Your task to perform on an android device: Where can I buy a nice beach cooler? Image 0: 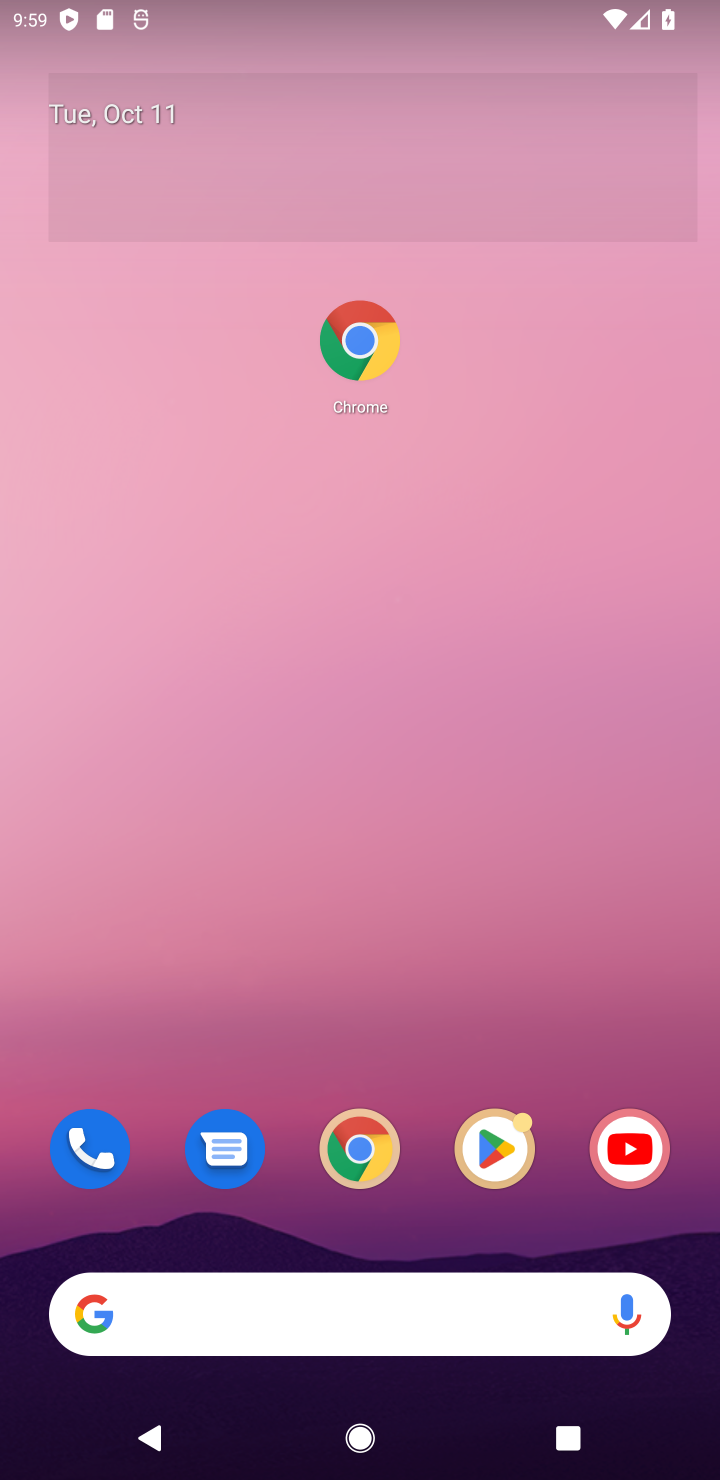
Step 0: drag from (411, 1249) to (395, 226)
Your task to perform on an android device: Where can I buy a nice beach cooler? Image 1: 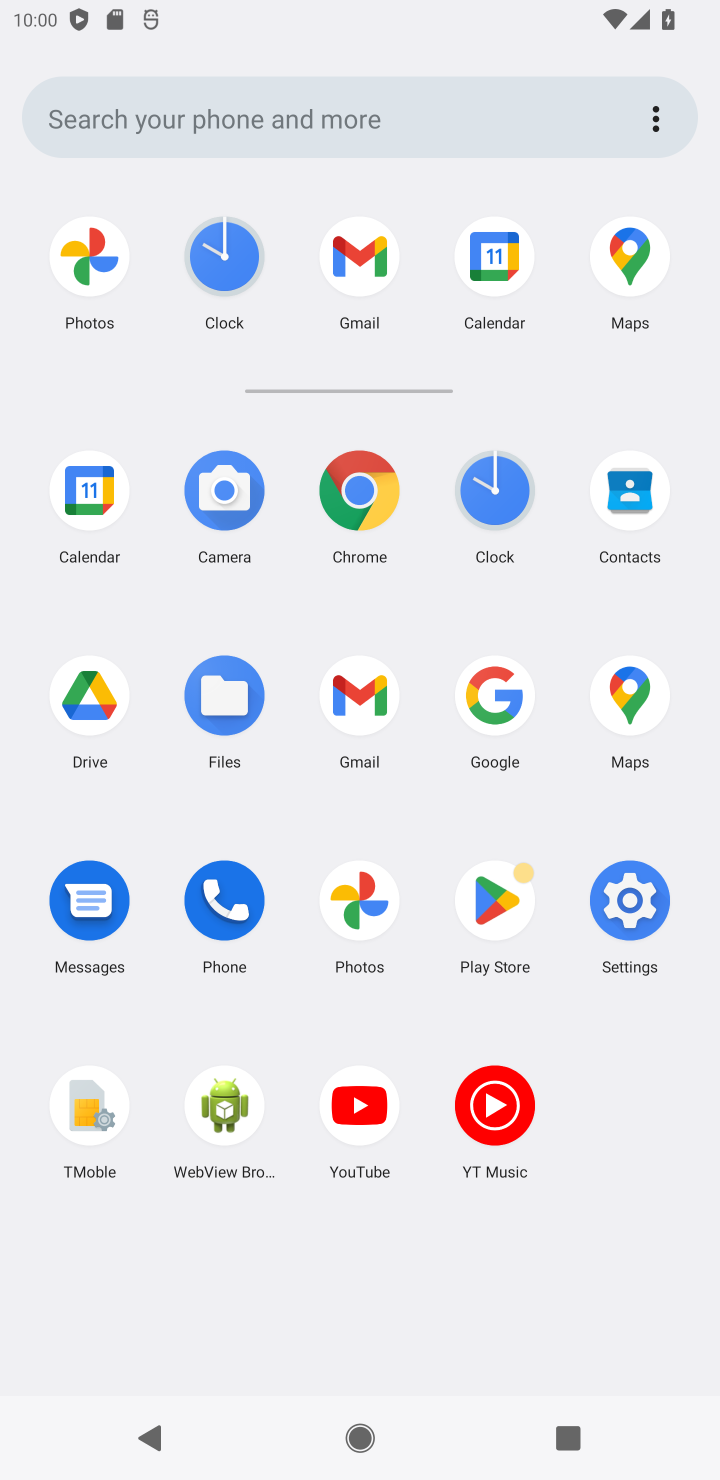
Step 1: click (354, 476)
Your task to perform on an android device: Where can I buy a nice beach cooler? Image 2: 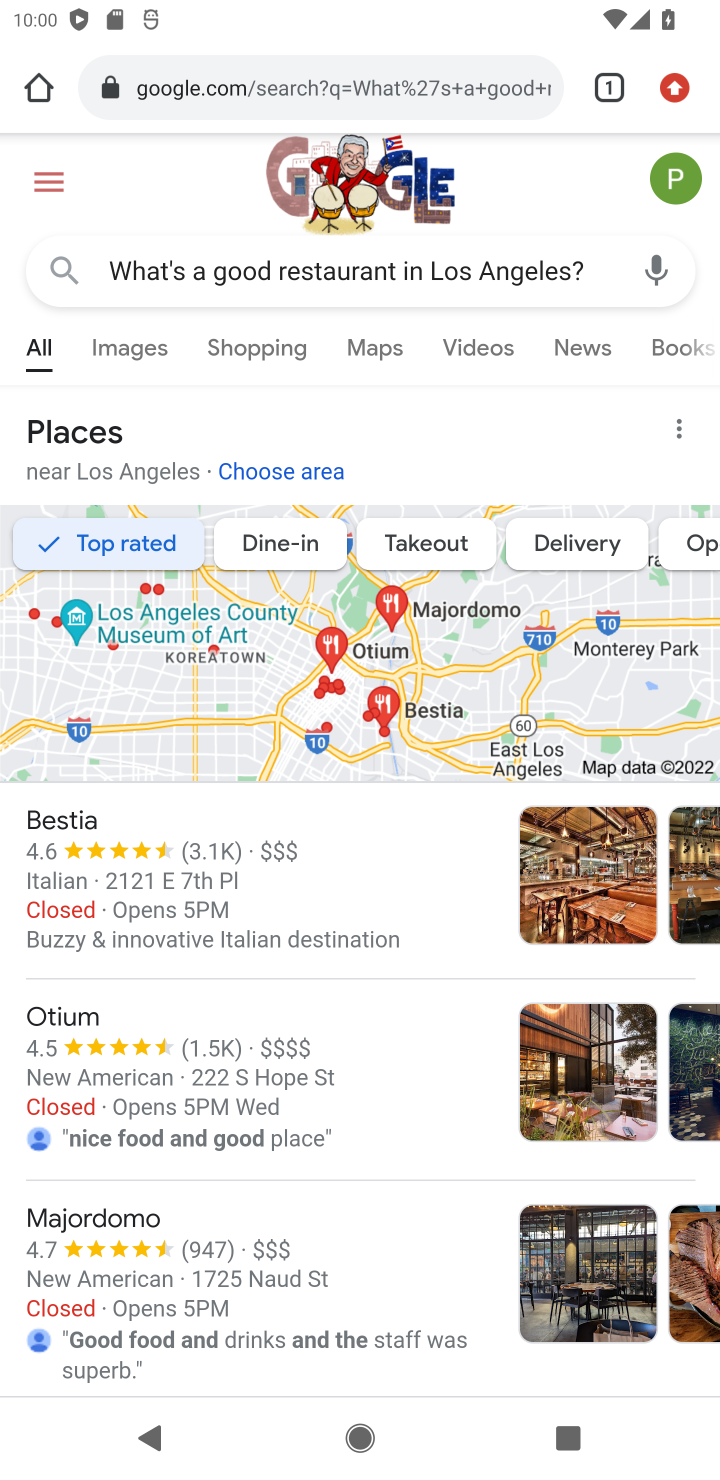
Step 2: click (471, 96)
Your task to perform on an android device: Where can I buy a nice beach cooler? Image 3: 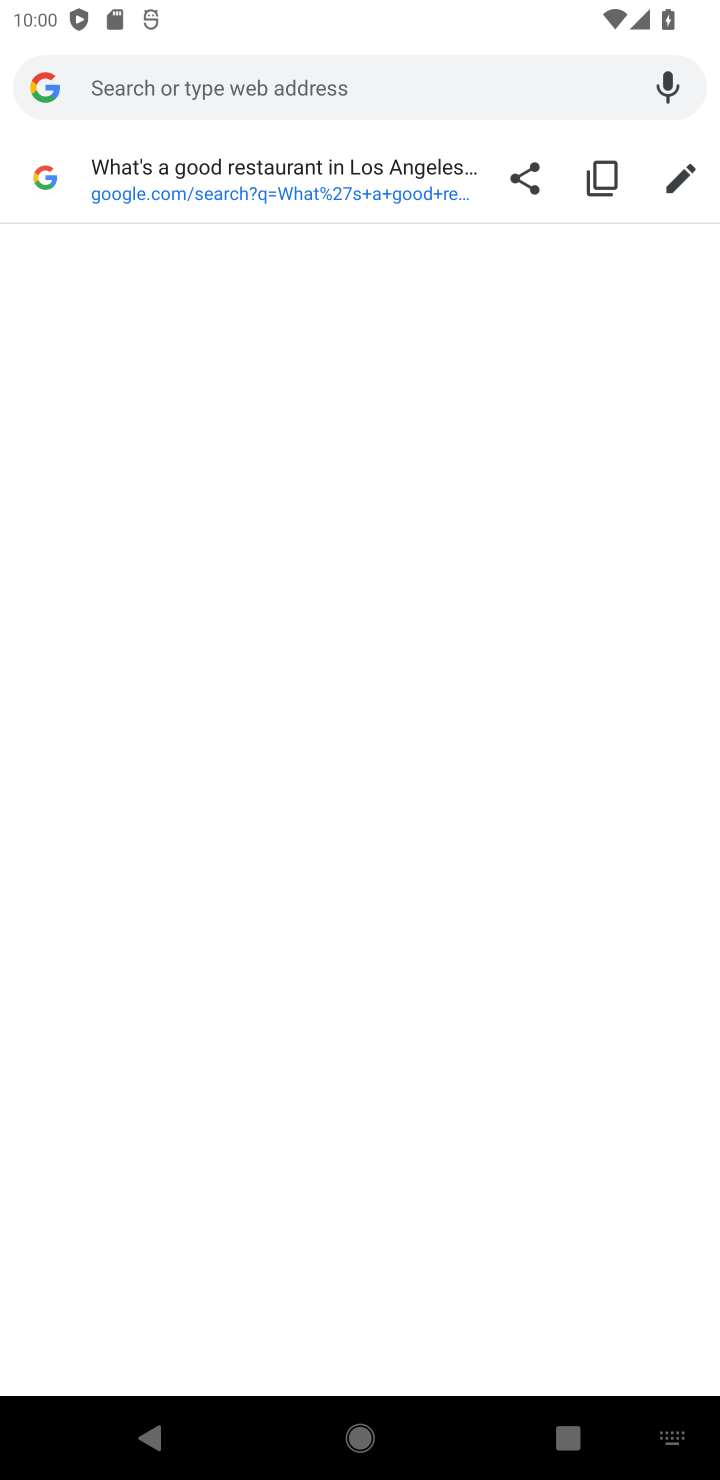
Step 3: type "Where can I buy a nice beach cooler?"
Your task to perform on an android device: Where can I buy a nice beach cooler? Image 4: 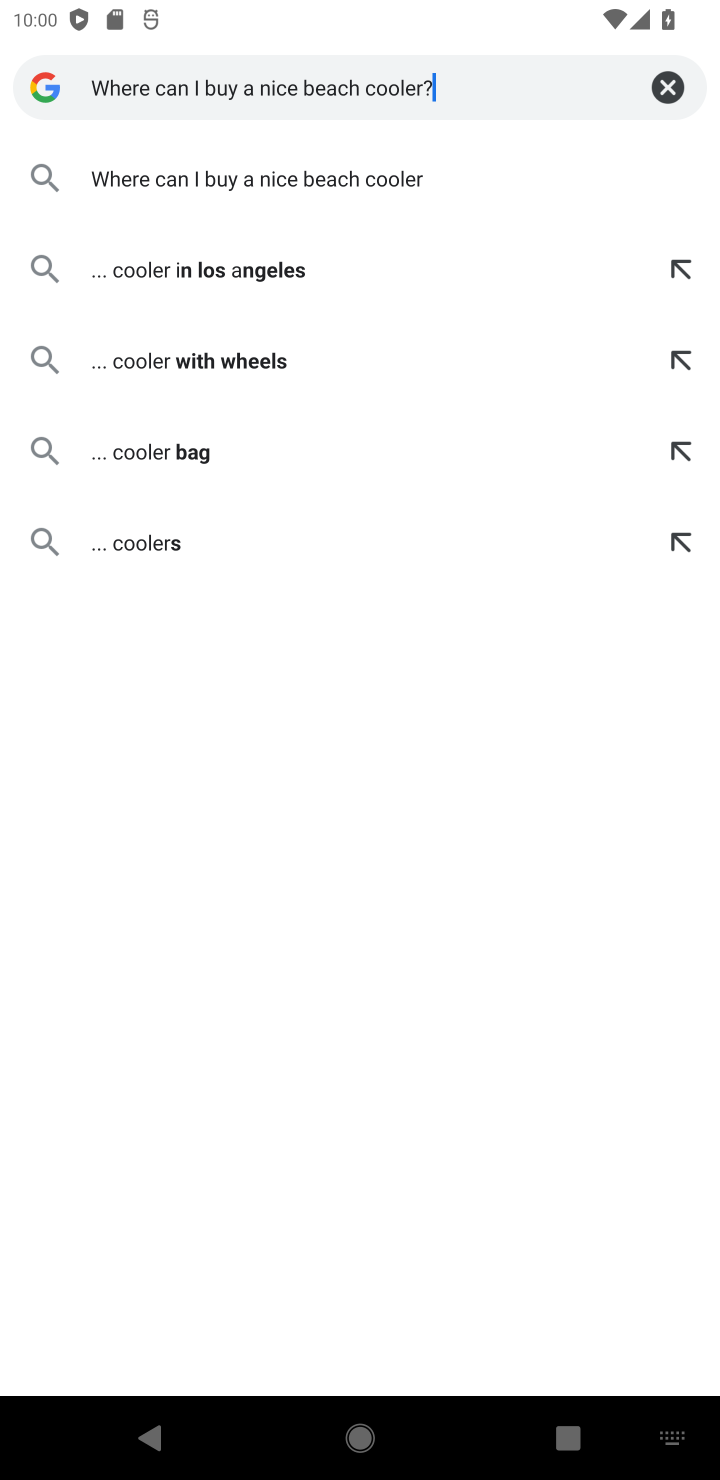
Step 4: press enter
Your task to perform on an android device: Where can I buy a nice beach cooler? Image 5: 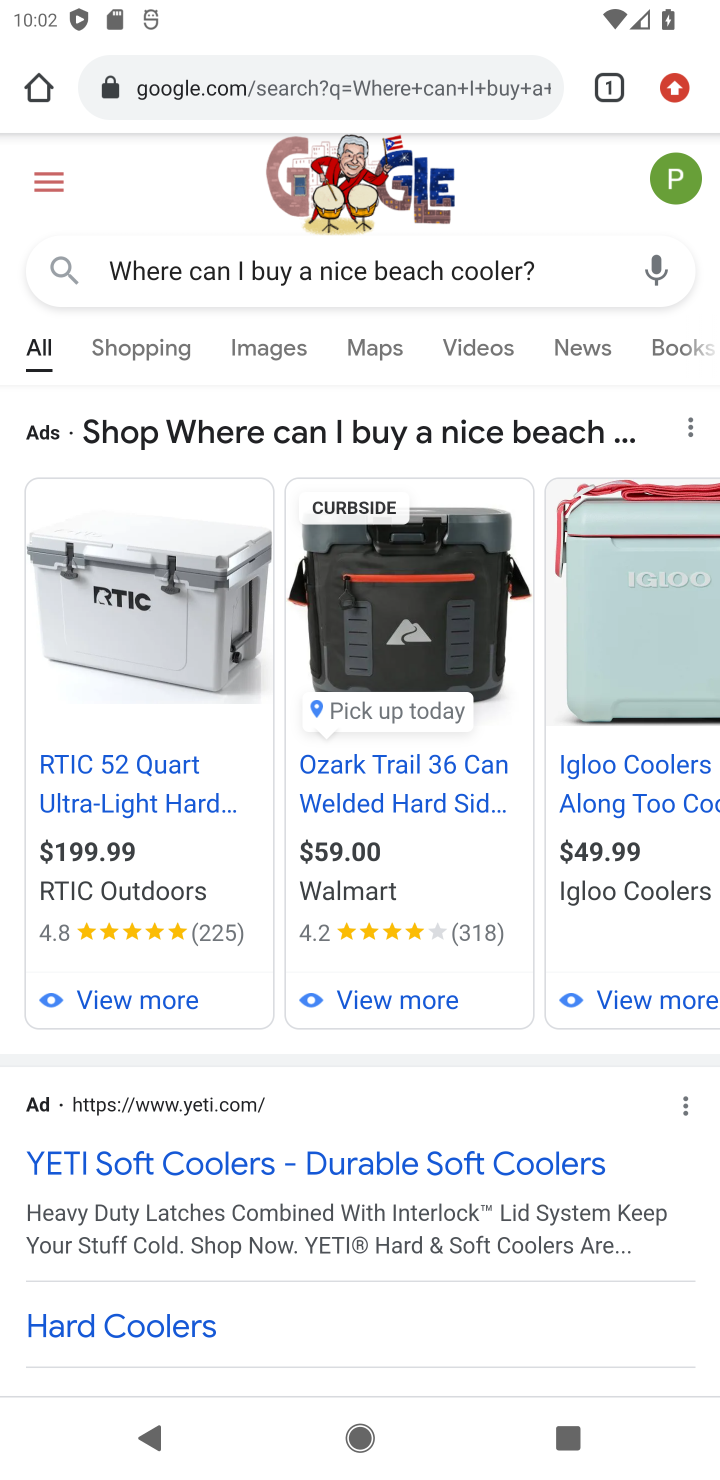
Step 5: task complete